Your task to perform on an android device: Show the shopping cart on ebay. Add "razer kraken" to the cart on ebay Image 0: 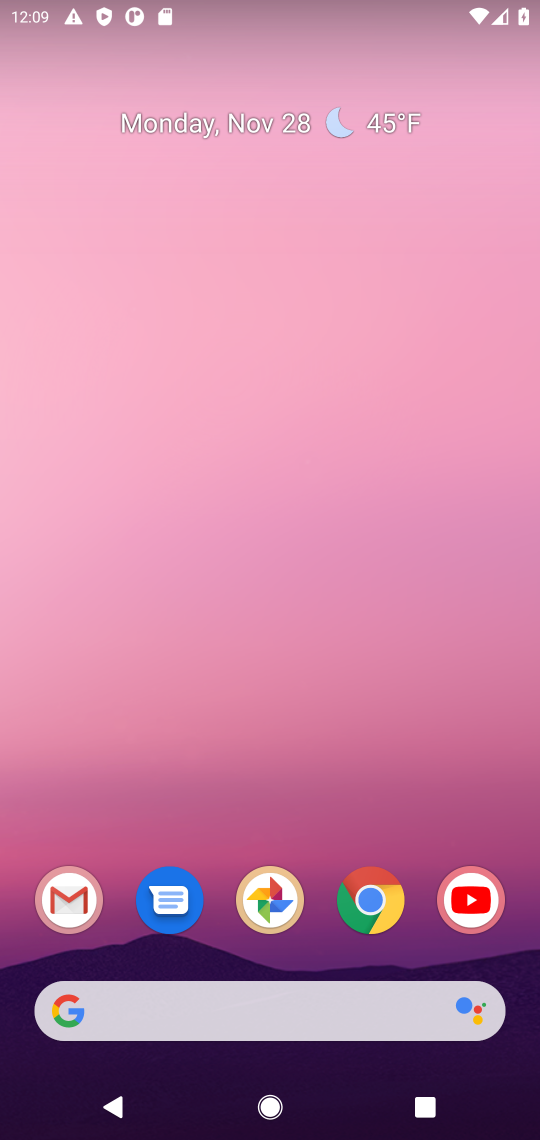
Step 0: click (367, 906)
Your task to perform on an android device: Show the shopping cart on ebay. Add "razer kraken" to the cart on ebay Image 1: 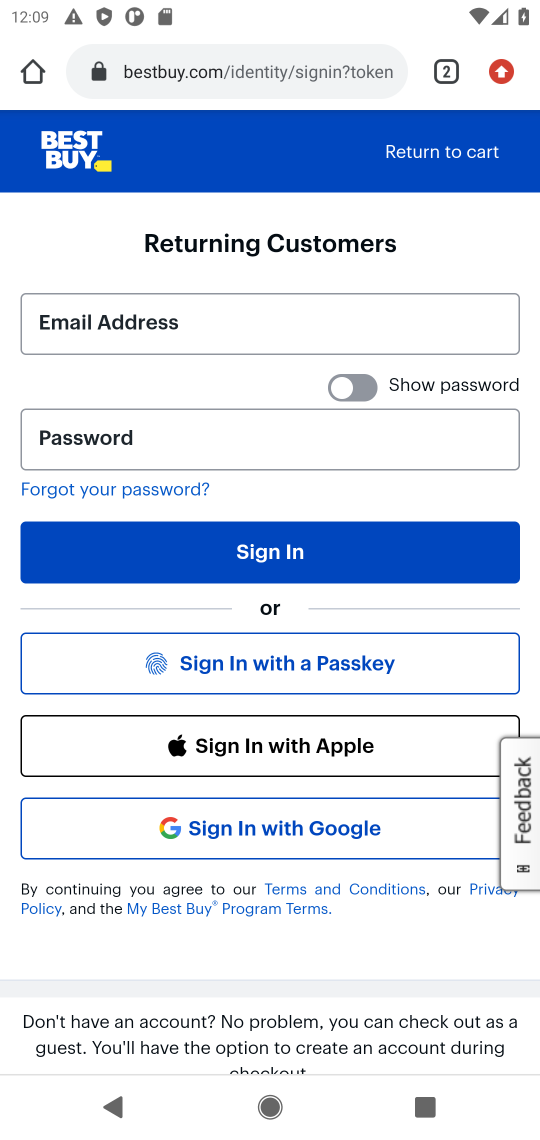
Step 1: click (254, 63)
Your task to perform on an android device: Show the shopping cart on ebay. Add "razer kraken" to the cart on ebay Image 2: 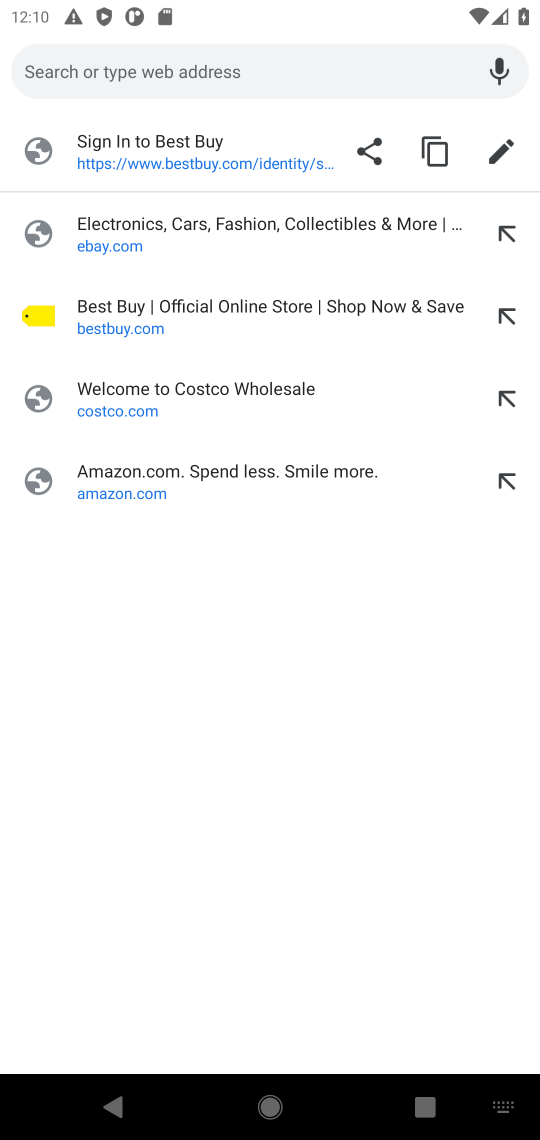
Step 2: click (106, 244)
Your task to perform on an android device: Show the shopping cart on ebay. Add "razer kraken" to the cart on ebay Image 3: 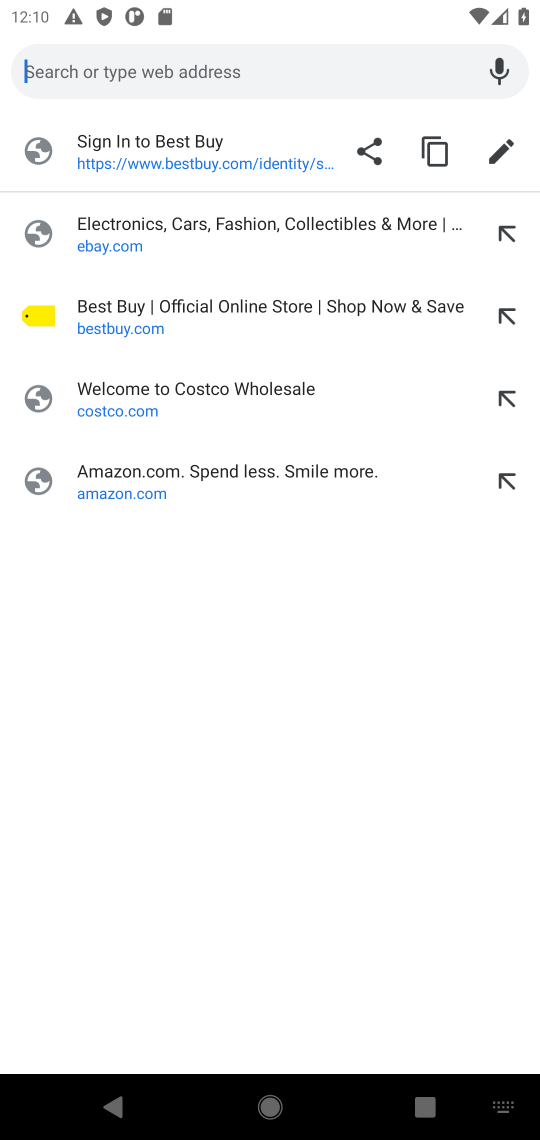
Step 3: click (106, 244)
Your task to perform on an android device: Show the shopping cart on ebay. Add "razer kraken" to the cart on ebay Image 4: 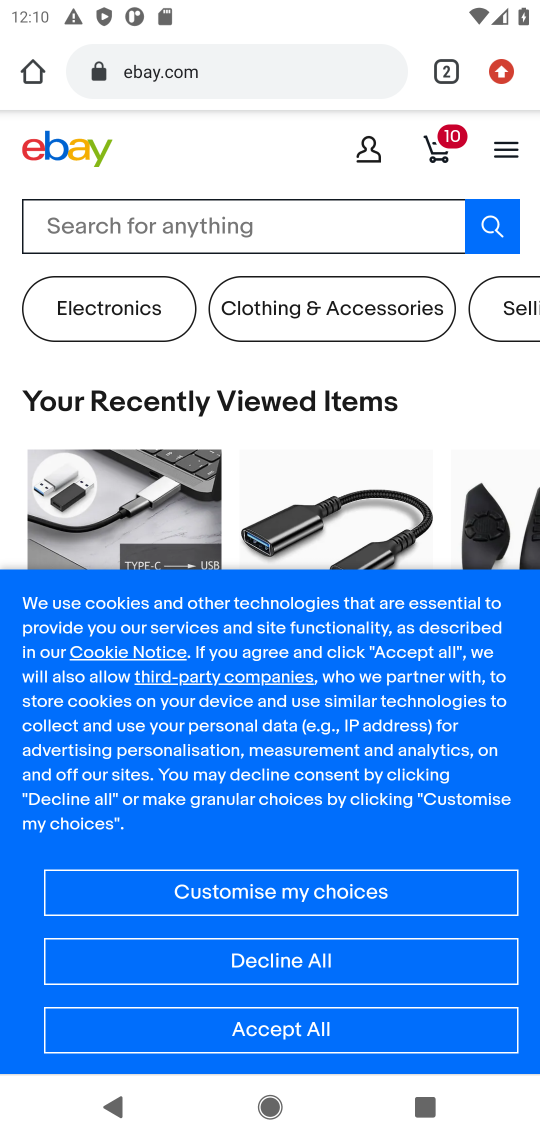
Step 4: click (443, 140)
Your task to perform on an android device: Show the shopping cart on ebay. Add "razer kraken" to the cart on ebay Image 5: 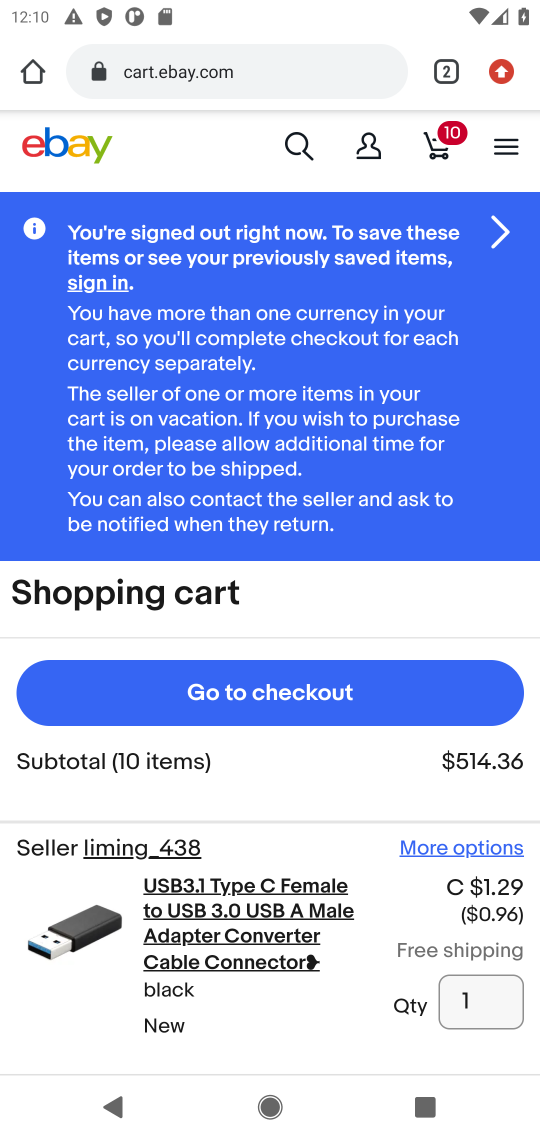
Step 5: drag from (329, 626) to (332, 342)
Your task to perform on an android device: Show the shopping cart on ebay. Add "razer kraken" to the cart on ebay Image 6: 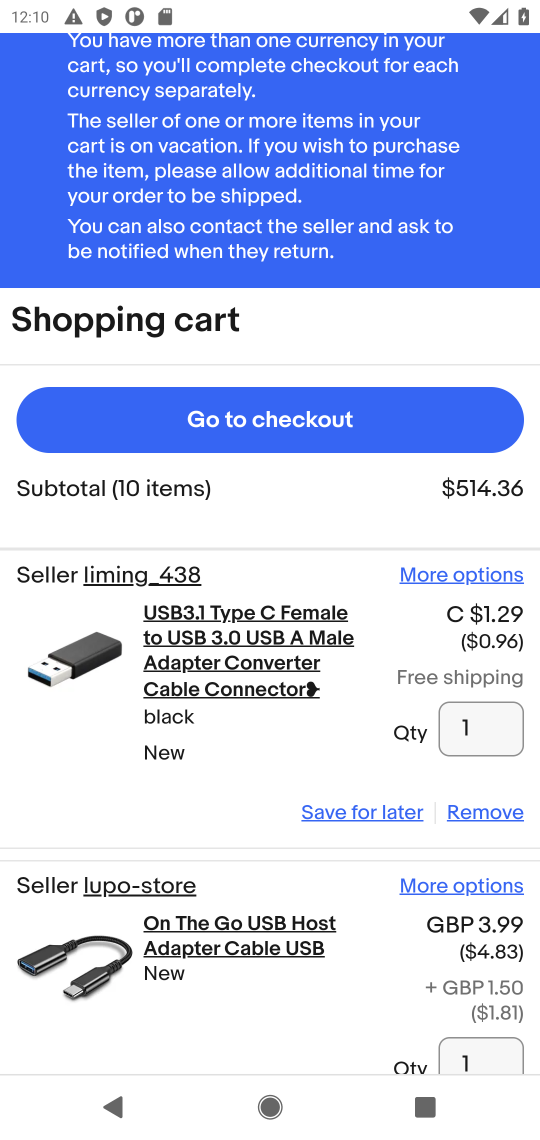
Step 6: drag from (392, 309) to (357, 734)
Your task to perform on an android device: Show the shopping cart on ebay. Add "razer kraken" to the cart on ebay Image 7: 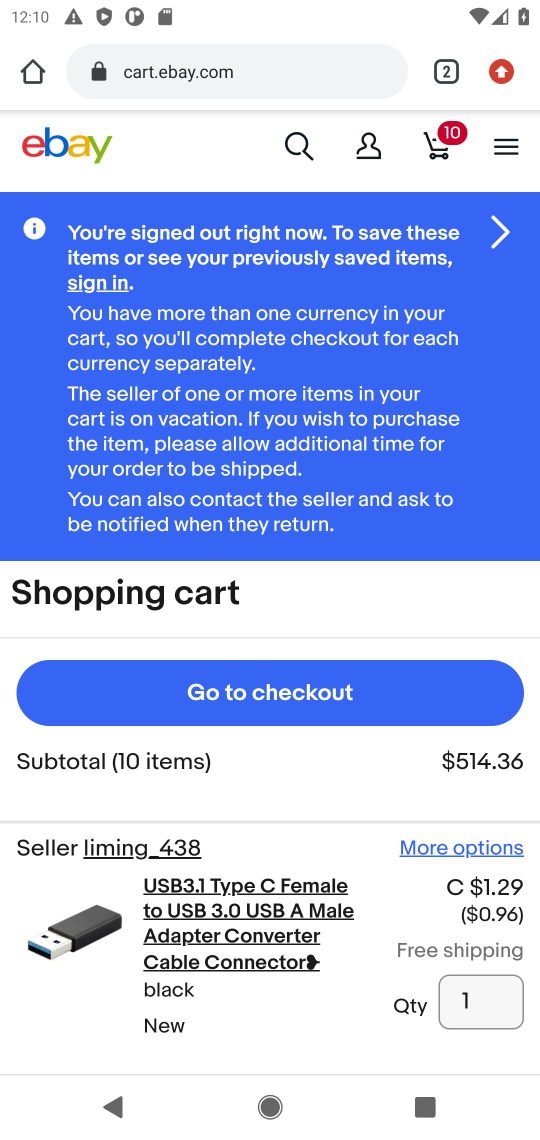
Step 7: click (294, 147)
Your task to perform on an android device: Show the shopping cart on ebay. Add "razer kraken" to the cart on ebay Image 8: 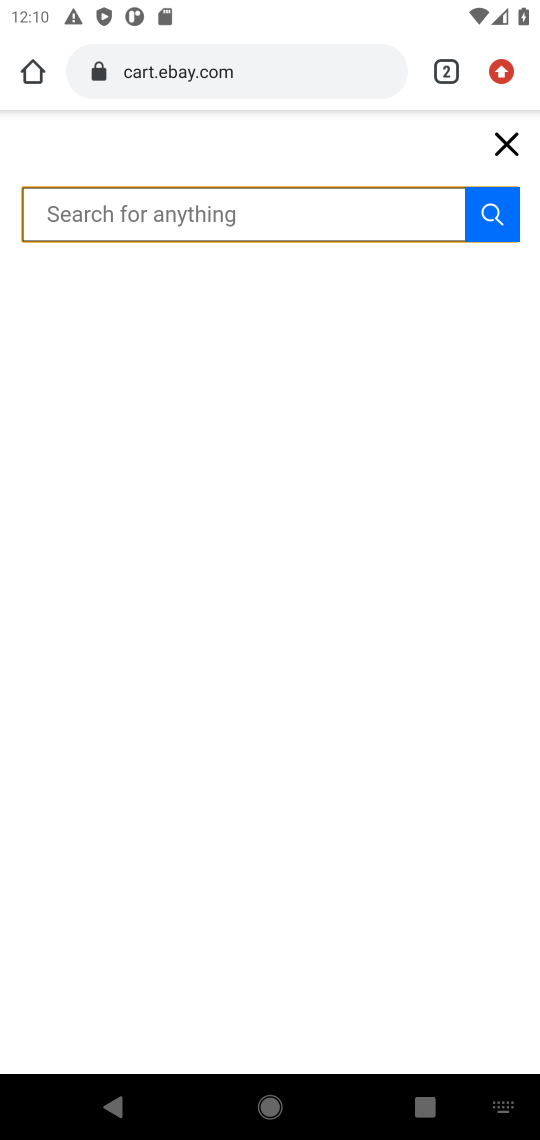
Step 8: type "razer kraken"
Your task to perform on an android device: Show the shopping cart on ebay. Add "razer kraken" to the cart on ebay Image 9: 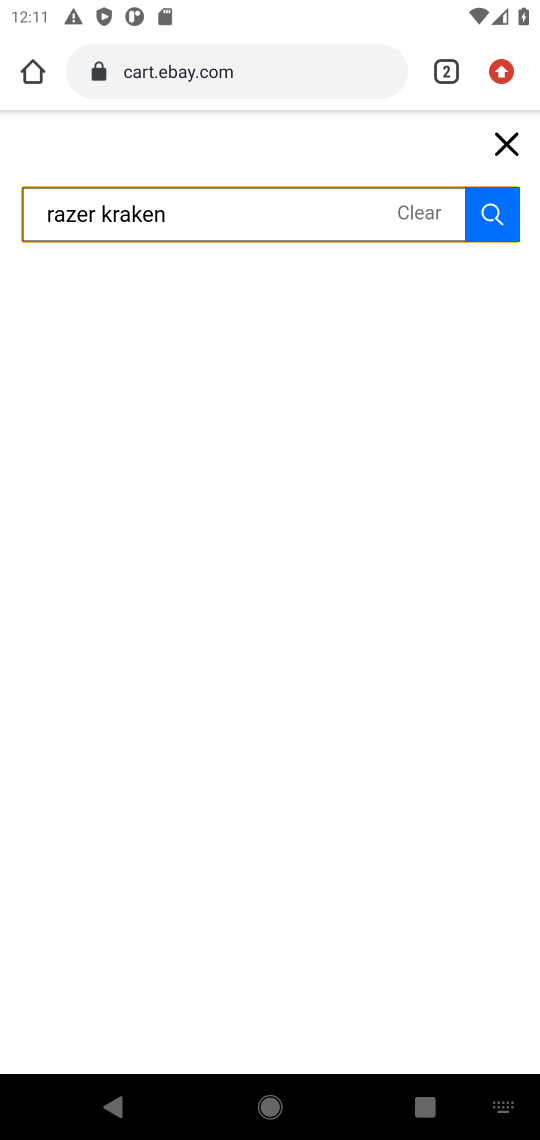
Step 9: click (484, 217)
Your task to perform on an android device: Show the shopping cart on ebay. Add "razer kraken" to the cart on ebay Image 10: 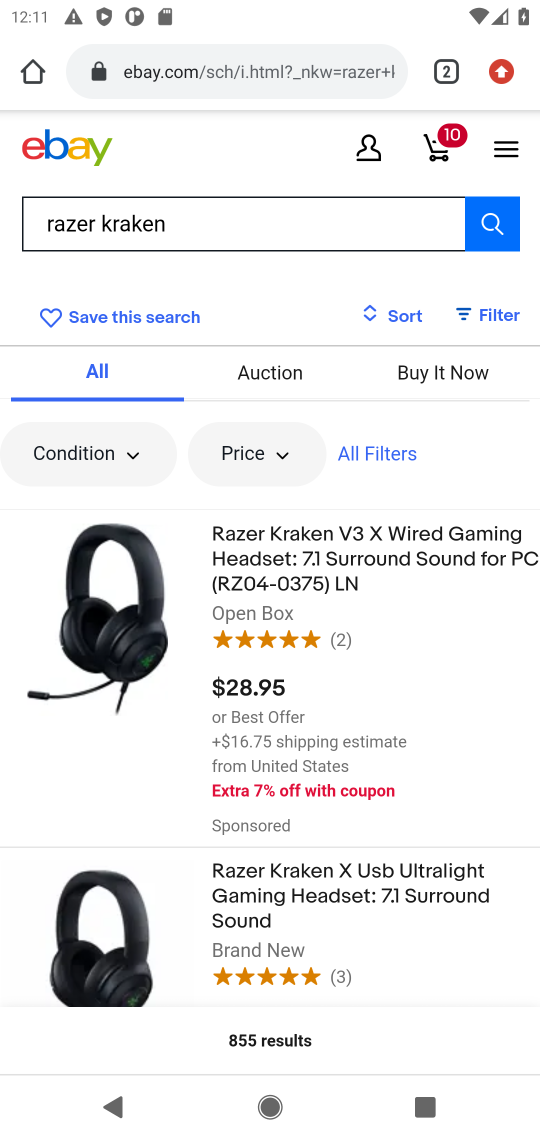
Step 10: click (288, 570)
Your task to perform on an android device: Show the shopping cart on ebay. Add "razer kraken" to the cart on ebay Image 11: 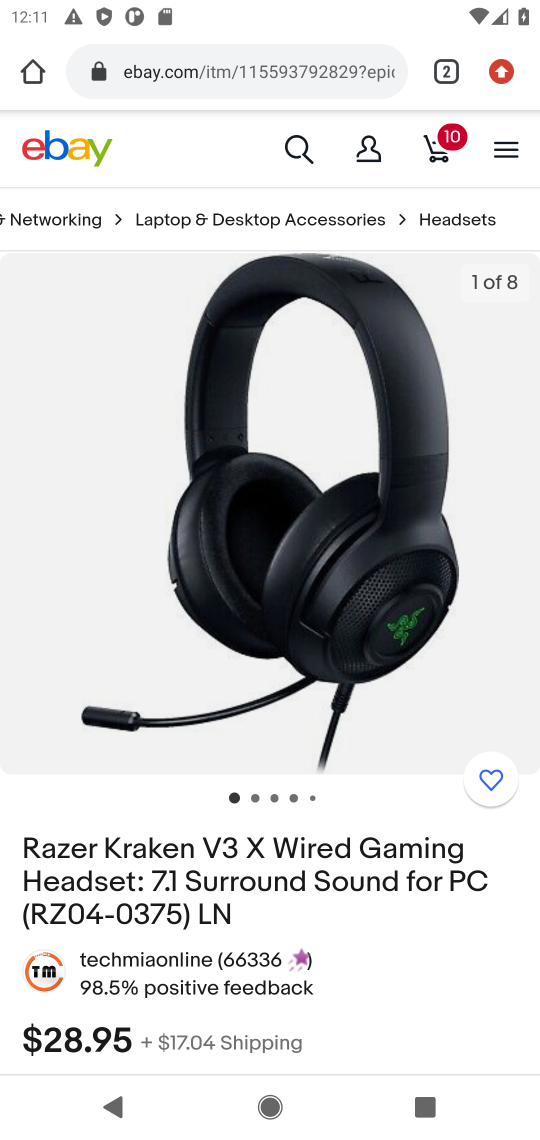
Step 11: drag from (134, 804) to (155, 392)
Your task to perform on an android device: Show the shopping cart on ebay. Add "razer kraken" to the cart on ebay Image 12: 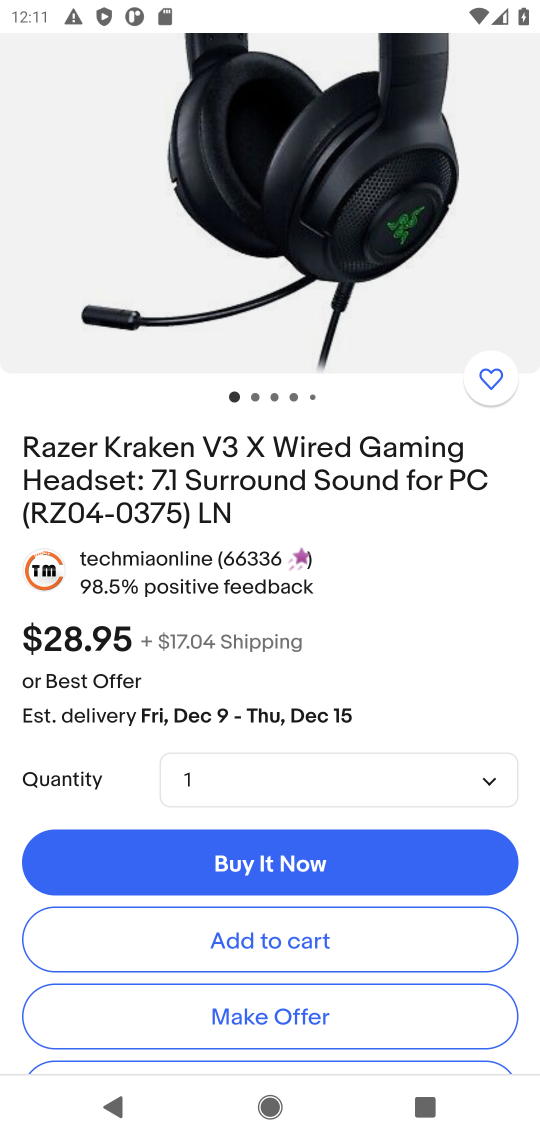
Step 12: click (240, 939)
Your task to perform on an android device: Show the shopping cart on ebay. Add "razer kraken" to the cart on ebay Image 13: 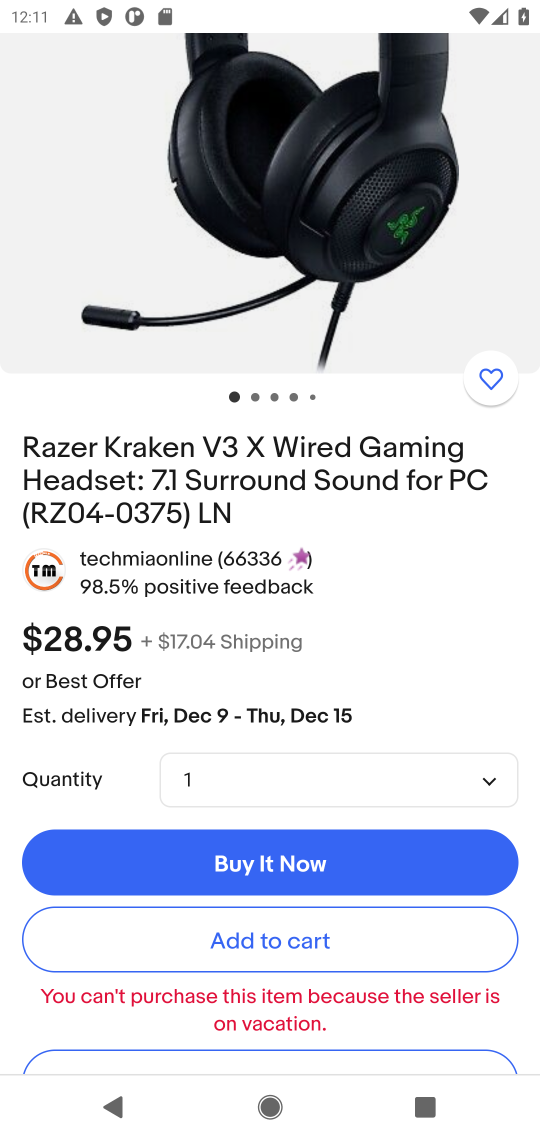
Step 13: drag from (280, 915) to (347, 635)
Your task to perform on an android device: Show the shopping cart on ebay. Add "razer kraken" to the cart on ebay Image 14: 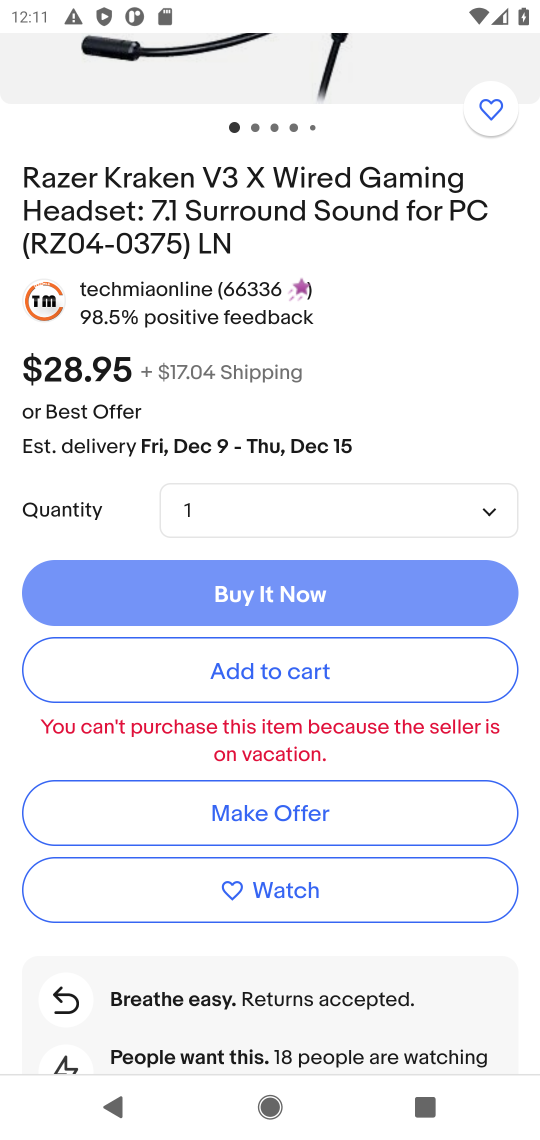
Step 14: press back button
Your task to perform on an android device: Show the shopping cart on ebay. Add "razer kraken" to the cart on ebay Image 15: 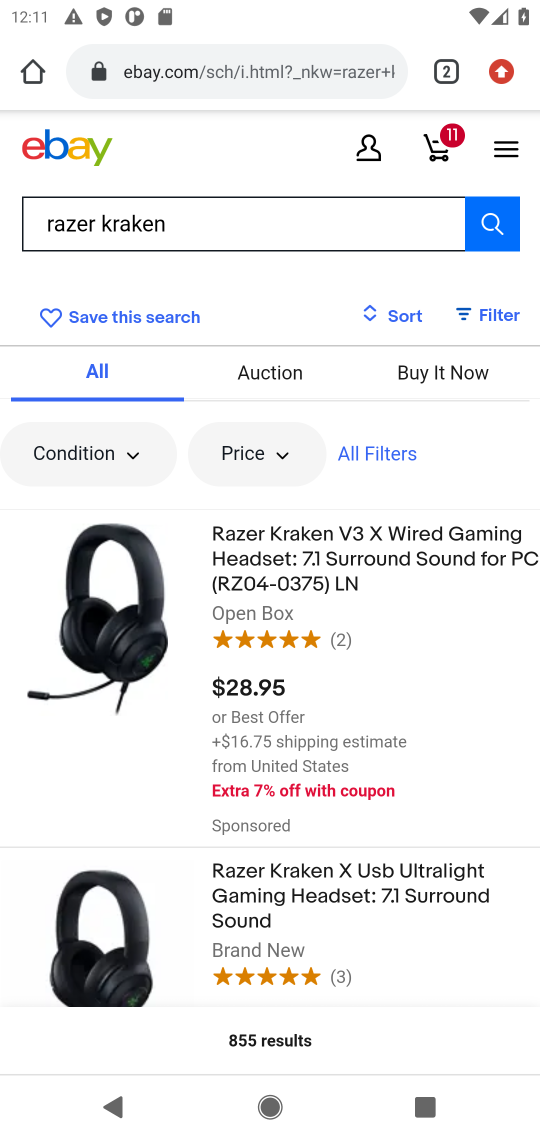
Step 15: drag from (164, 850) to (238, 432)
Your task to perform on an android device: Show the shopping cart on ebay. Add "razer kraken" to the cart on ebay Image 16: 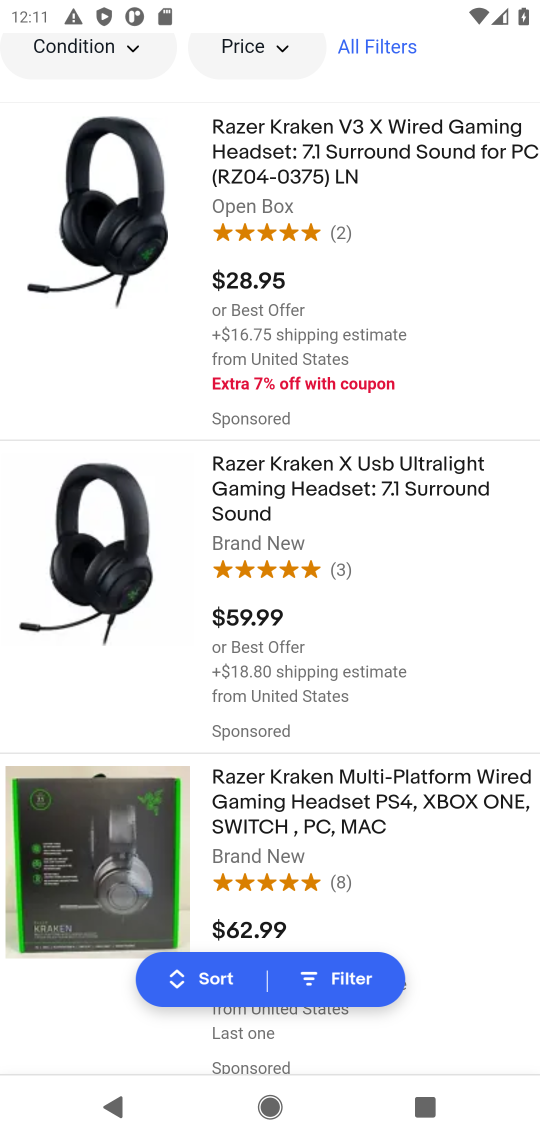
Step 16: click (314, 509)
Your task to perform on an android device: Show the shopping cart on ebay. Add "razer kraken" to the cart on ebay Image 17: 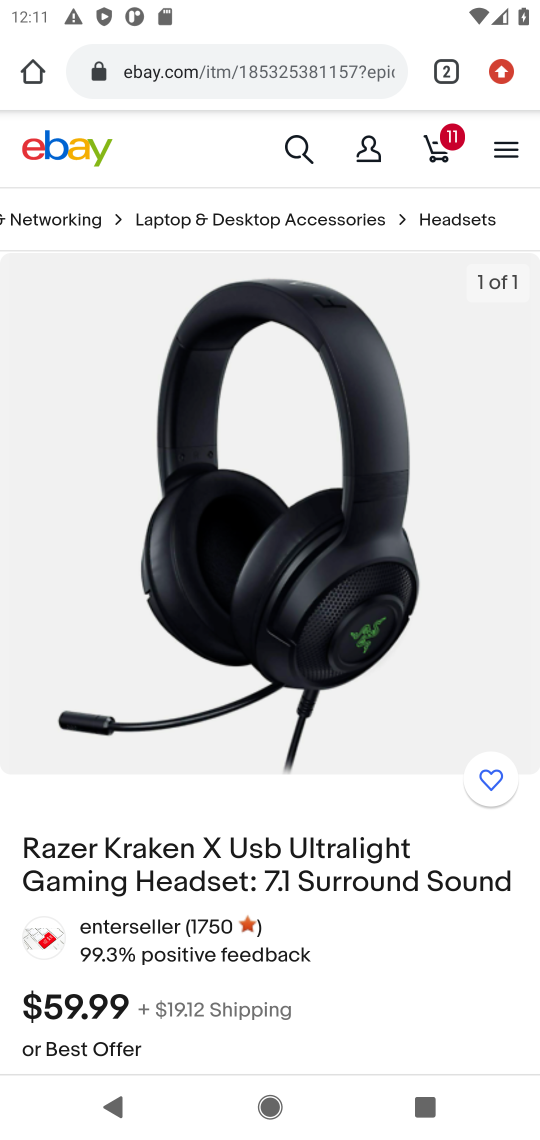
Step 17: drag from (271, 796) to (286, 334)
Your task to perform on an android device: Show the shopping cart on ebay. Add "razer kraken" to the cart on ebay Image 18: 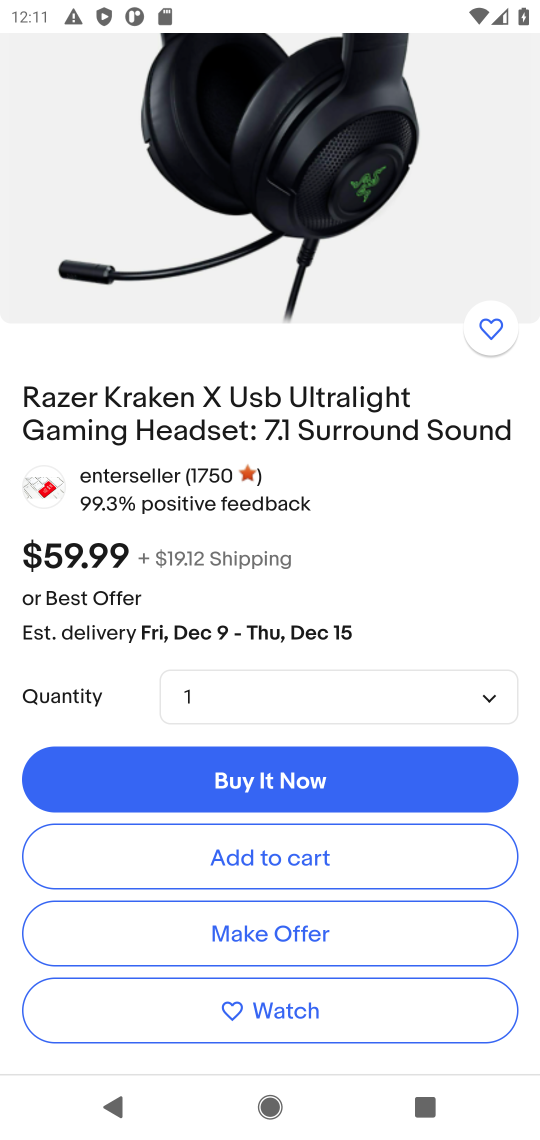
Step 18: click (211, 847)
Your task to perform on an android device: Show the shopping cart on ebay. Add "razer kraken" to the cart on ebay Image 19: 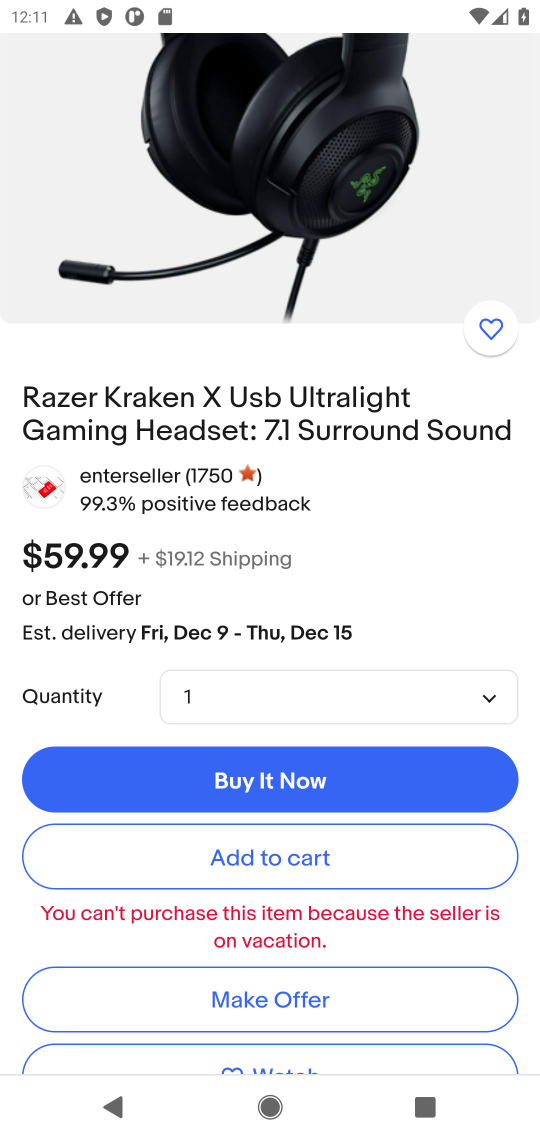
Step 19: press back button
Your task to perform on an android device: Show the shopping cart on ebay. Add "razer kraken" to the cart on ebay Image 20: 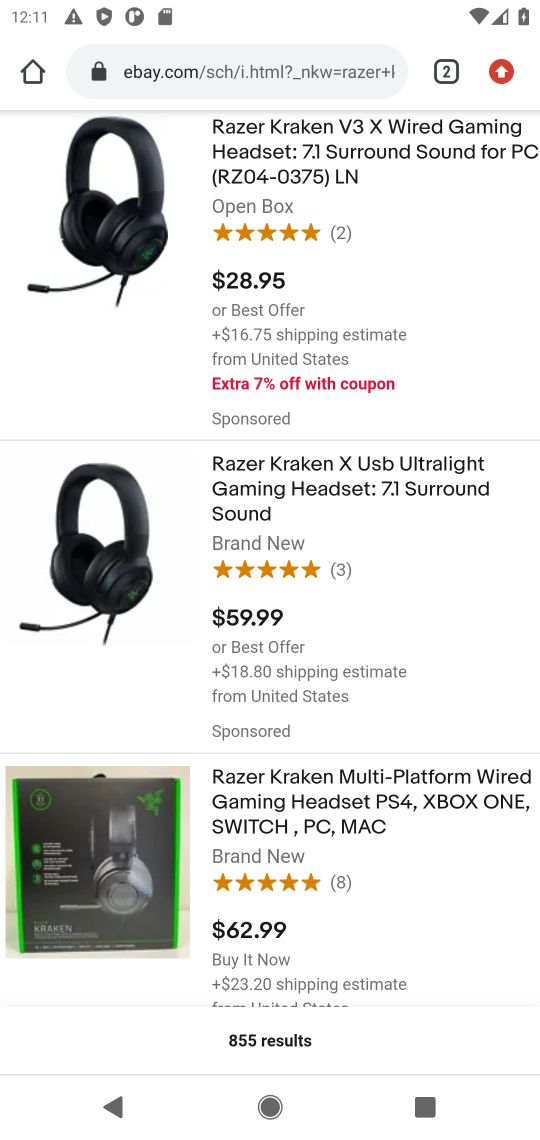
Step 20: drag from (338, 806) to (388, 346)
Your task to perform on an android device: Show the shopping cart on ebay. Add "razer kraken" to the cart on ebay Image 21: 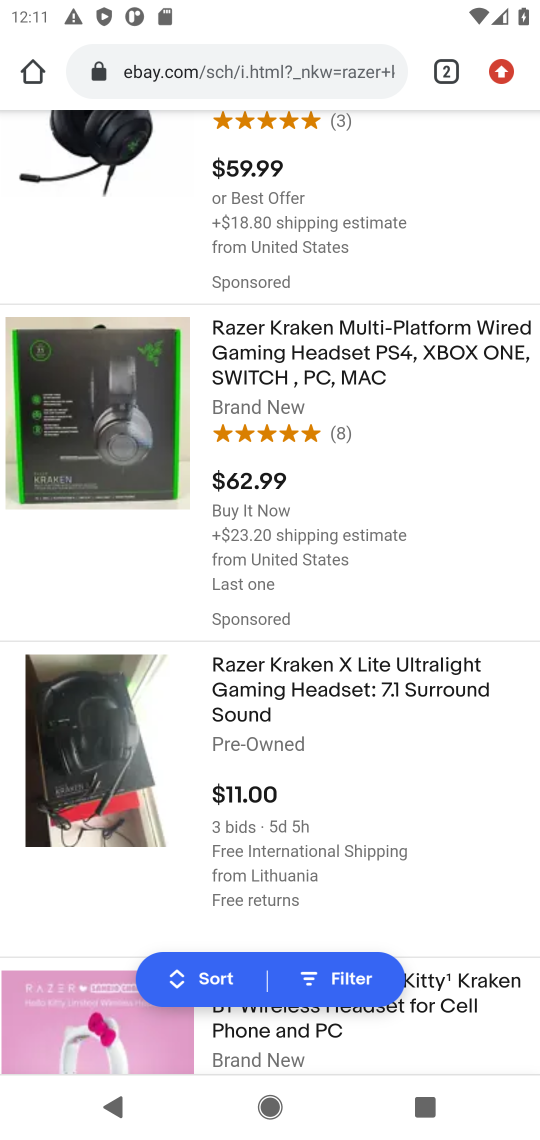
Step 21: click (261, 392)
Your task to perform on an android device: Show the shopping cart on ebay. Add "razer kraken" to the cart on ebay Image 22: 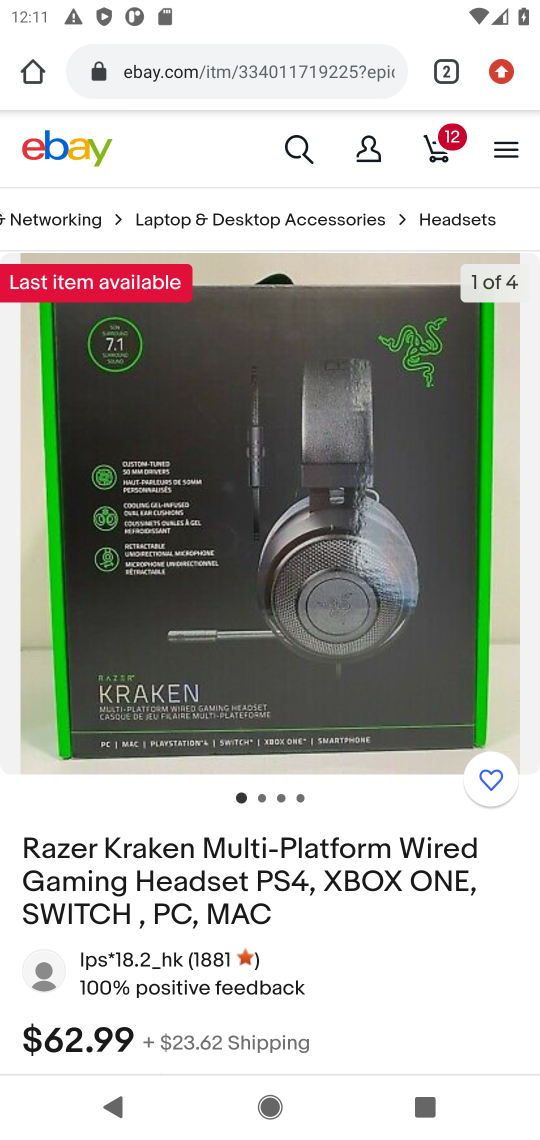
Step 22: drag from (312, 706) to (297, 365)
Your task to perform on an android device: Show the shopping cart on ebay. Add "razer kraken" to the cart on ebay Image 23: 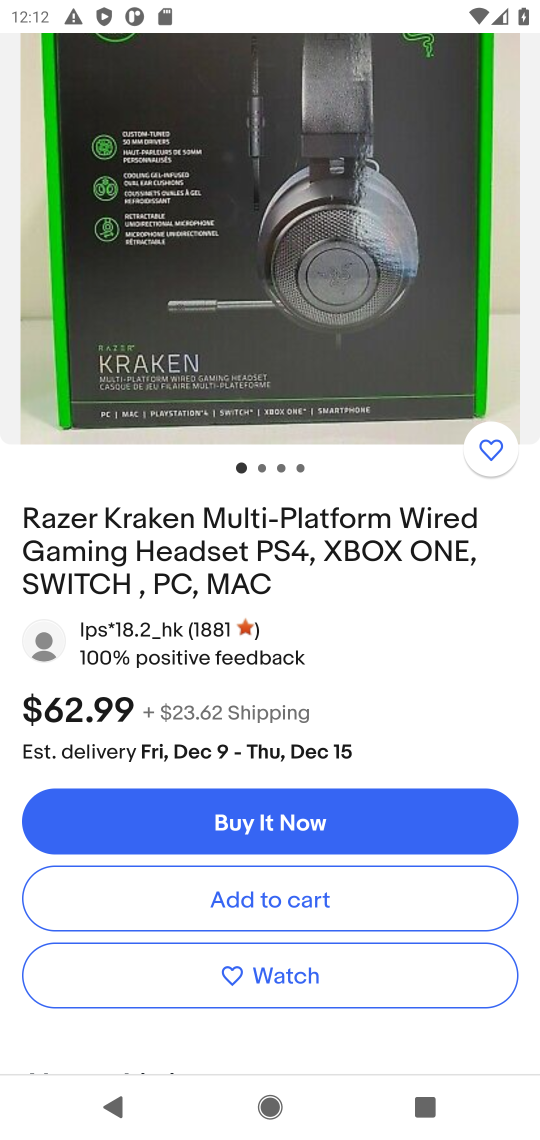
Step 23: click (220, 899)
Your task to perform on an android device: Show the shopping cart on ebay. Add "razer kraken" to the cart on ebay Image 24: 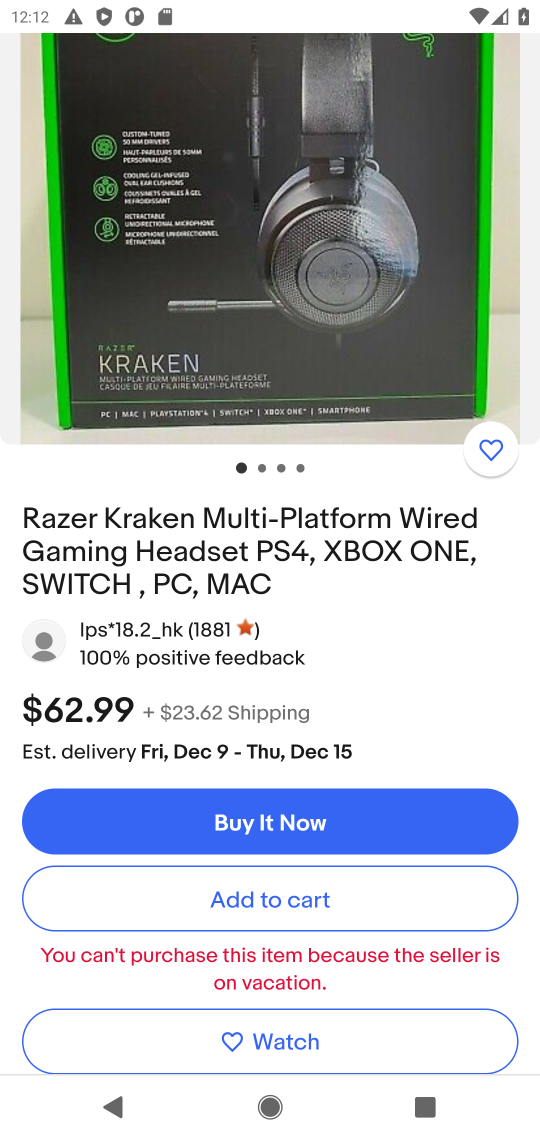
Step 24: task complete